Your task to perform on an android device: Open Google Image 0: 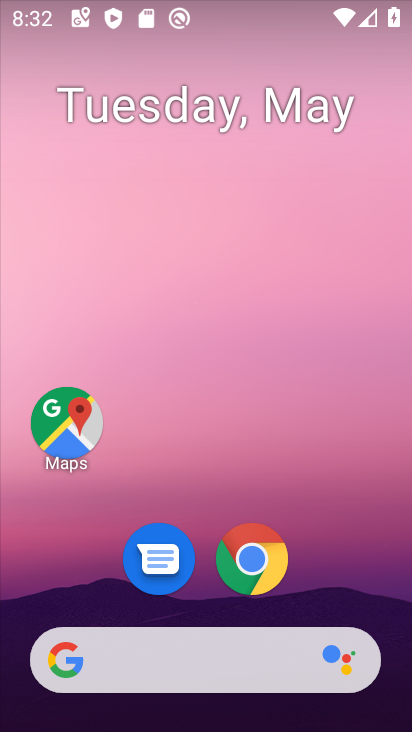
Step 0: drag from (180, 653) to (59, 32)
Your task to perform on an android device: Open Google Image 1: 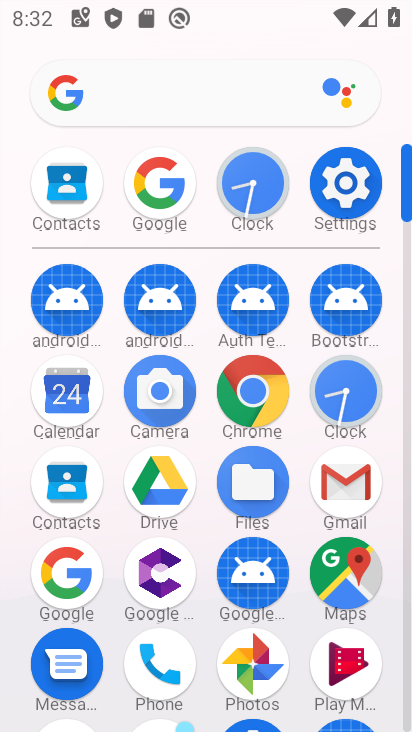
Step 1: click (67, 574)
Your task to perform on an android device: Open Google Image 2: 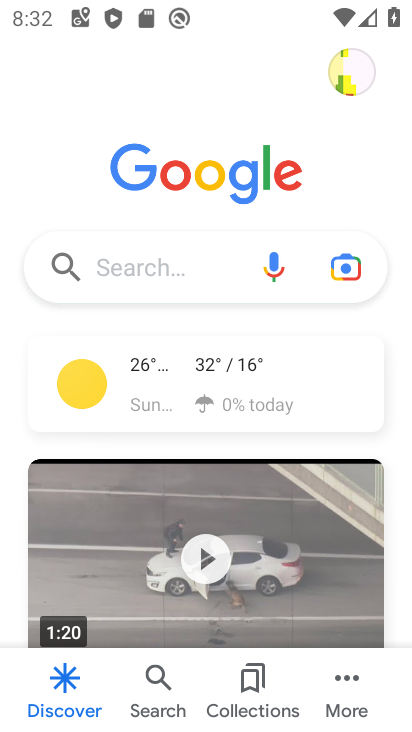
Step 2: task complete